Your task to perform on an android device: Open Google Chrome and open the bookmarks view Image 0: 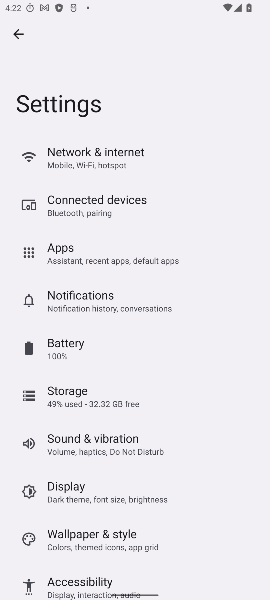
Step 0: press home button
Your task to perform on an android device: Open Google Chrome and open the bookmarks view Image 1: 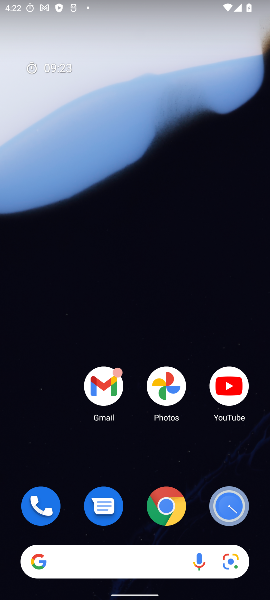
Step 1: drag from (81, 473) to (75, 62)
Your task to perform on an android device: Open Google Chrome and open the bookmarks view Image 2: 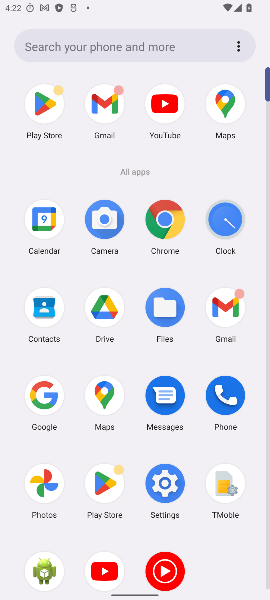
Step 2: click (170, 224)
Your task to perform on an android device: Open Google Chrome and open the bookmarks view Image 3: 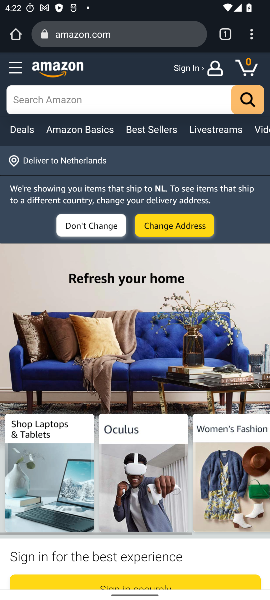
Step 3: drag from (258, 35) to (165, 206)
Your task to perform on an android device: Open Google Chrome and open the bookmarks view Image 4: 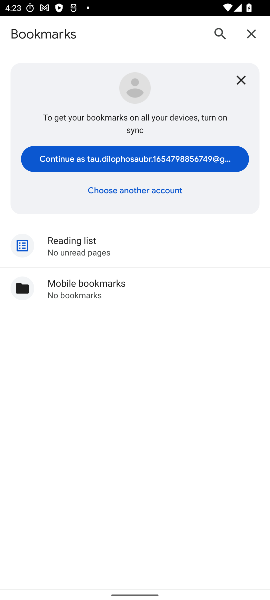
Step 4: click (176, 165)
Your task to perform on an android device: Open Google Chrome and open the bookmarks view Image 5: 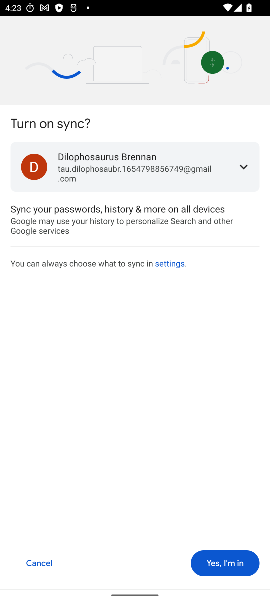
Step 5: click (219, 572)
Your task to perform on an android device: Open Google Chrome and open the bookmarks view Image 6: 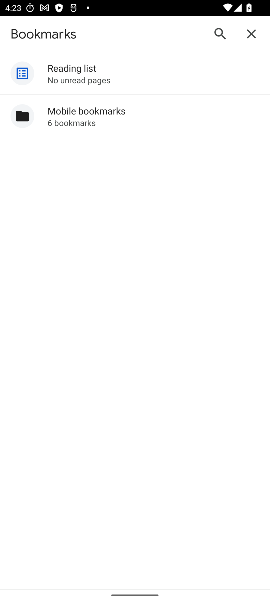
Step 6: click (77, 114)
Your task to perform on an android device: Open Google Chrome and open the bookmarks view Image 7: 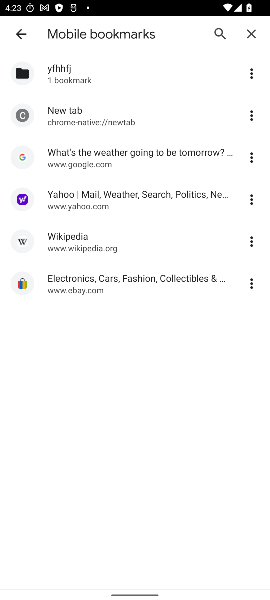
Step 7: task complete